Your task to perform on an android device: Go to privacy settings Image 0: 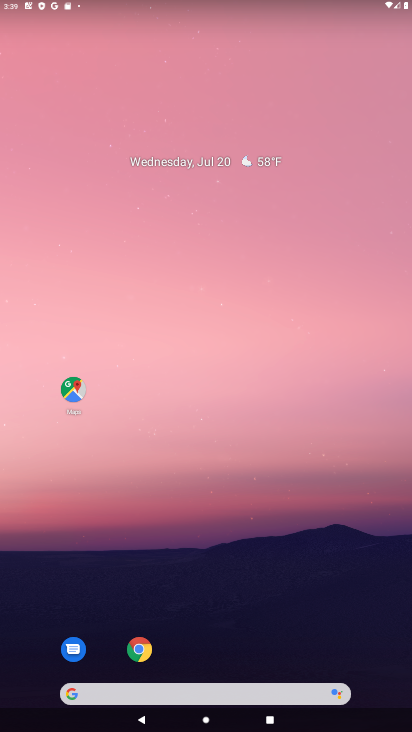
Step 0: drag from (221, 725) to (215, 505)
Your task to perform on an android device: Go to privacy settings Image 1: 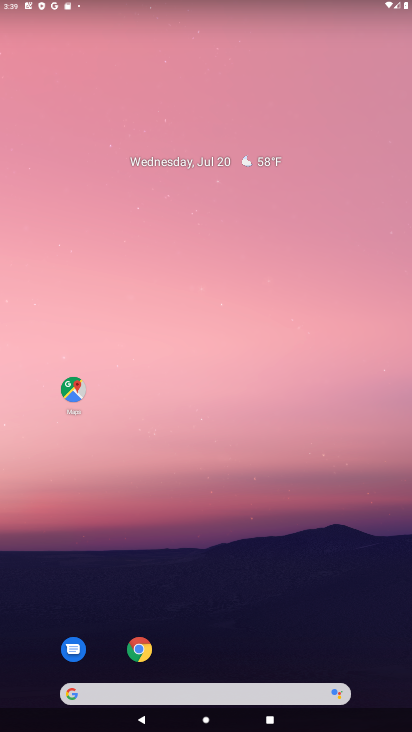
Step 1: drag from (246, 725) to (249, 76)
Your task to perform on an android device: Go to privacy settings Image 2: 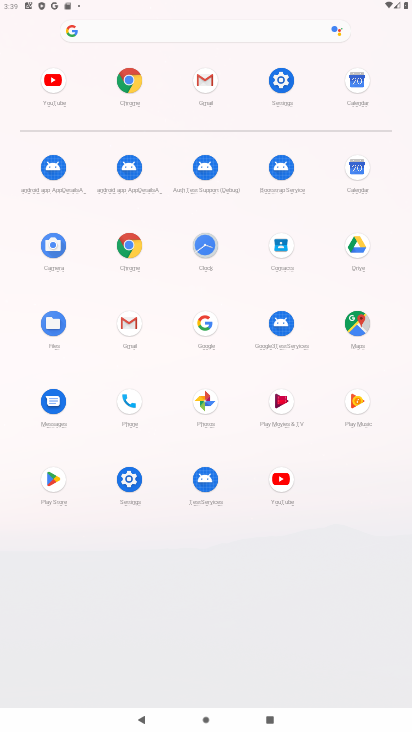
Step 2: click (285, 80)
Your task to perform on an android device: Go to privacy settings Image 3: 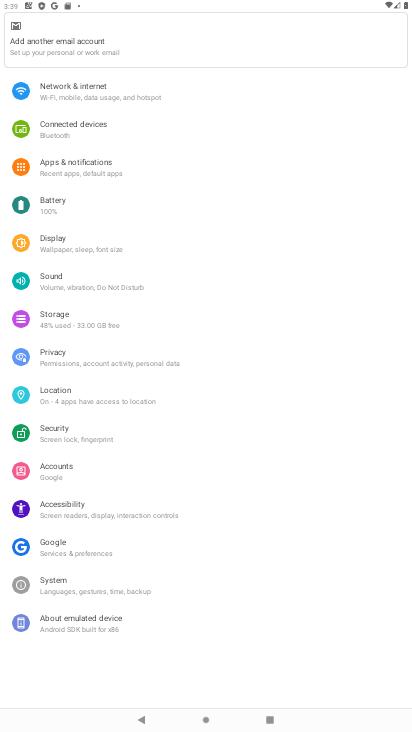
Step 3: click (52, 355)
Your task to perform on an android device: Go to privacy settings Image 4: 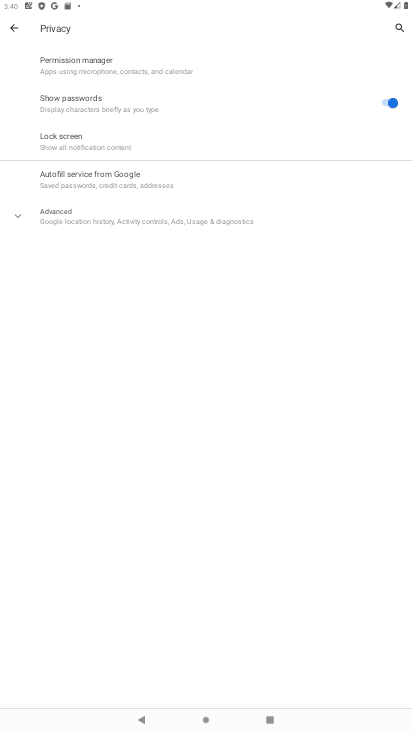
Step 4: task complete